Your task to perform on an android device: turn on sleep mode Image 0: 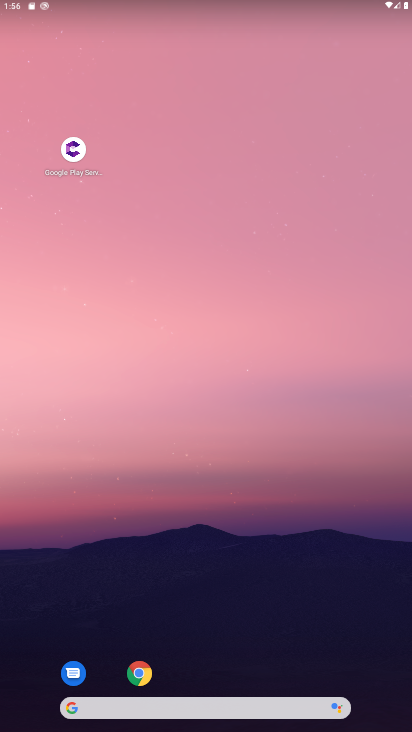
Step 0: drag from (197, 661) to (168, 89)
Your task to perform on an android device: turn on sleep mode Image 1: 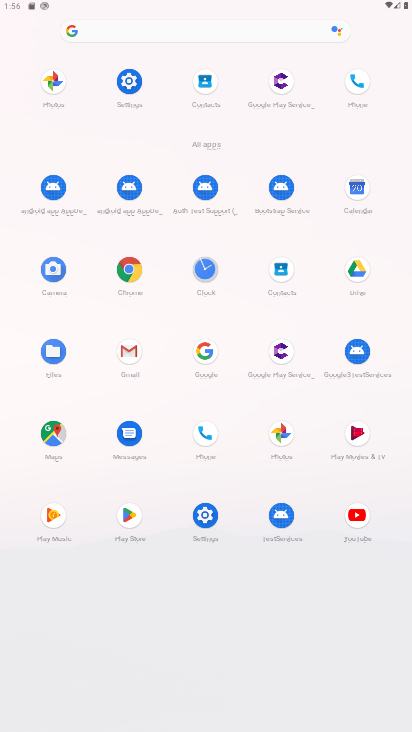
Step 1: click (122, 86)
Your task to perform on an android device: turn on sleep mode Image 2: 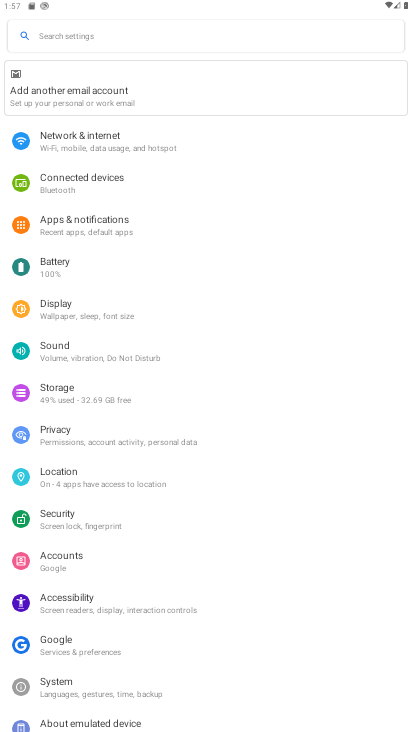
Step 2: click (86, 314)
Your task to perform on an android device: turn on sleep mode Image 3: 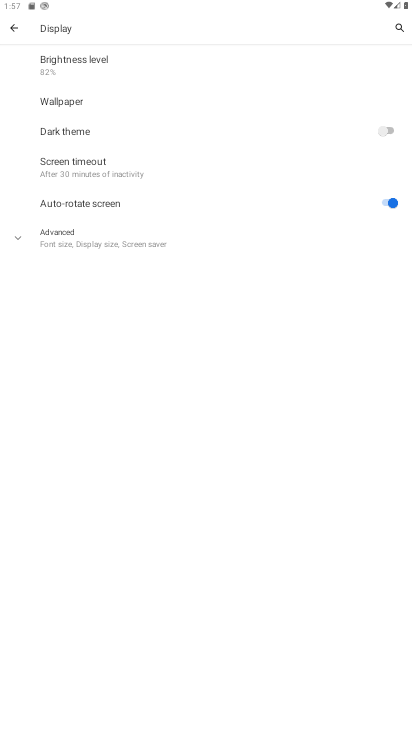
Step 3: click (194, 246)
Your task to perform on an android device: turn on sleep mode Image 4: 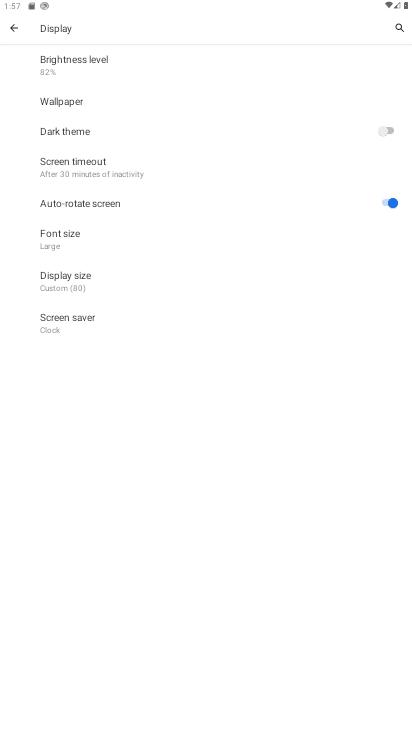
Step 4: task complete